Your task to perform on an android device: Open calendar and show me the third week of next month Image 0: 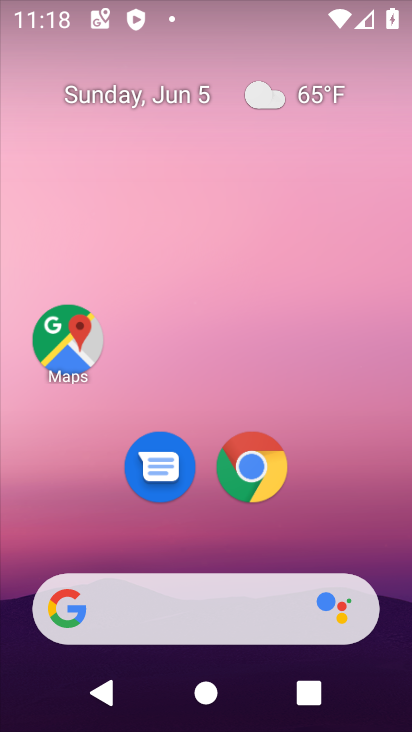
Step 0: drag from (352, 493) to (340, 107)
Your task to perform on an android device: Open calendar and show me the third week of next month Image 1: 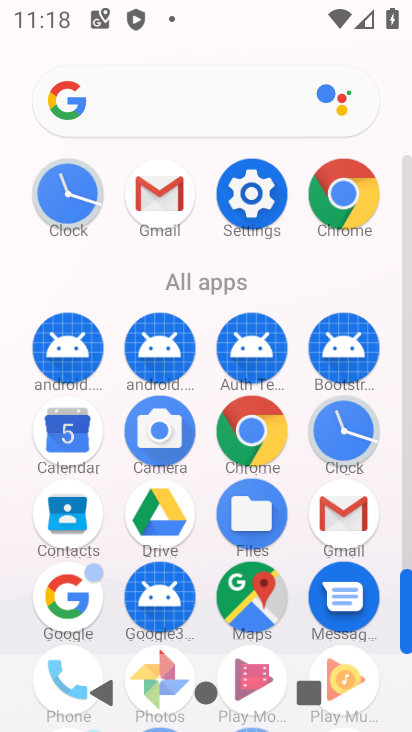
Step 1: click (52, 449)
Your task to perform on an android device: Open calendar and show me the third week of next month Image 2: 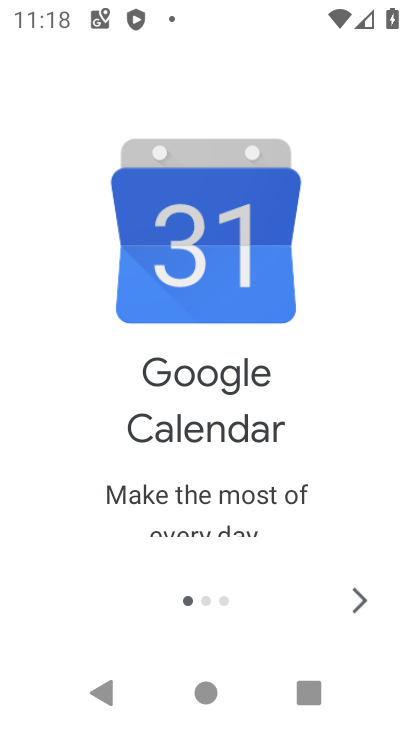
Step 2: click (347, 613)
Your task to perform on an android device: Open calendar and show me the third week of next month Image 3: 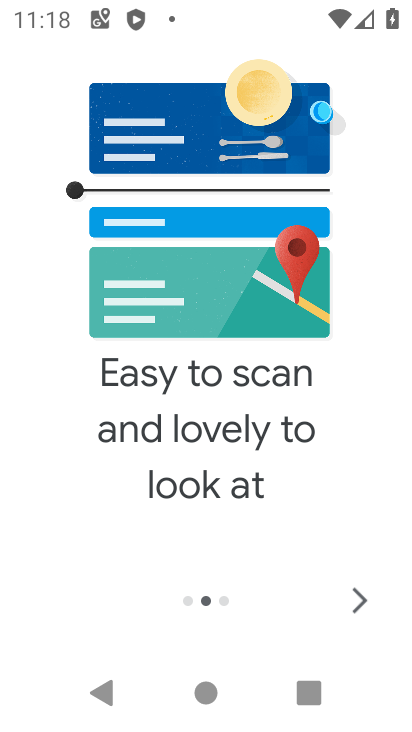
Step 3: click (347, 613)
Your task to perform on an android device: Open calendar and show me the third week of next month Image 4: 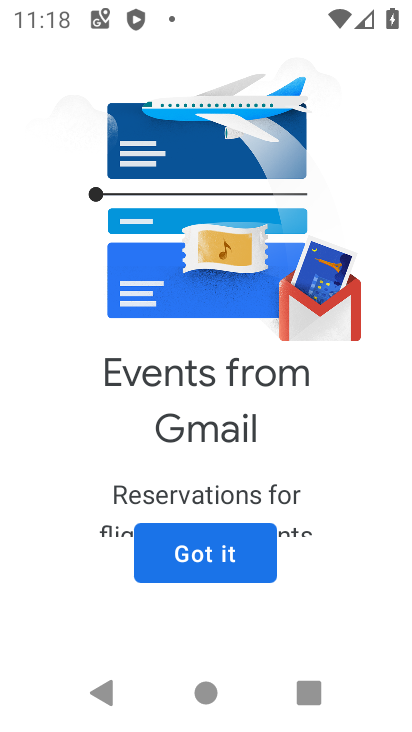
Step 4: click (214, 571)
Your task to perform on an android device: Open calendar and show me the third week of next month Image 5: 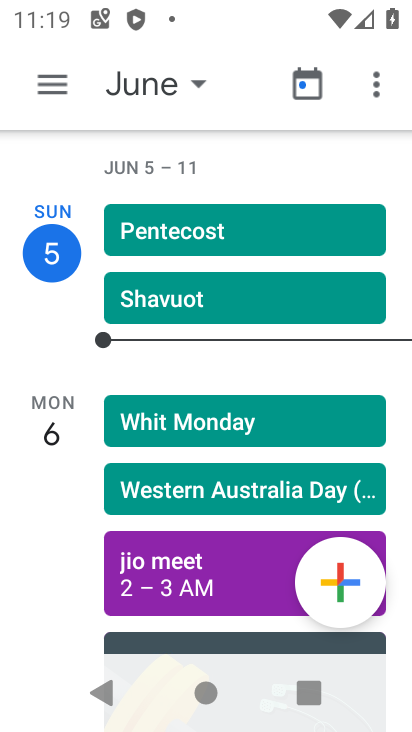
Step 5: click (182, 80)
Your task to perform on an android device: Open calendar and show me the third week of next month Image 6: 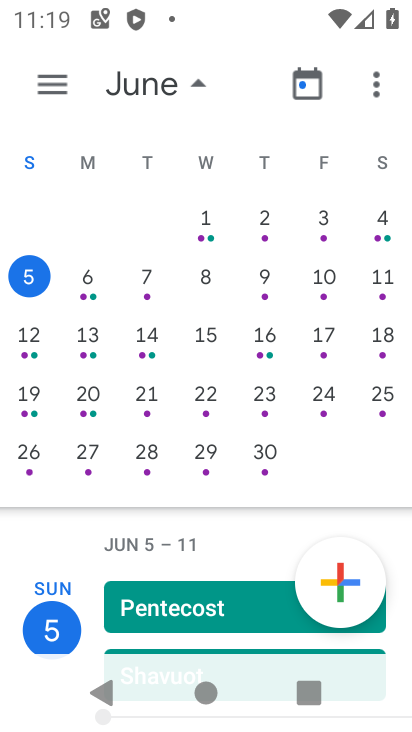
Step 6: drag from (387, 314) to (7, 361)
Your task to perform on an android device: Open calendar and show me the third week of next month Image 7: 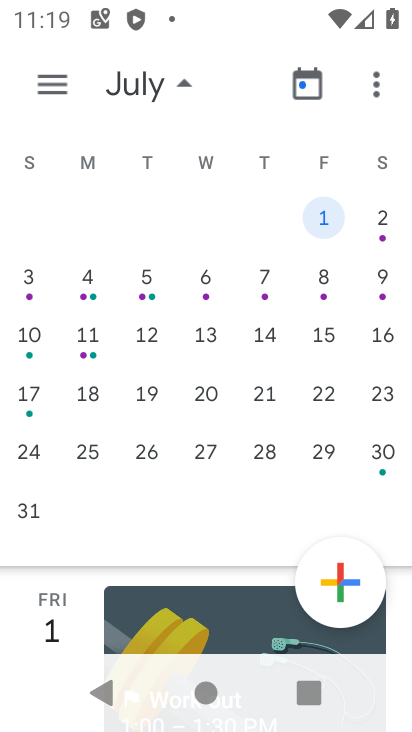
Step 7: click (317, 354)
Your task to perform on an android device: Open calendar and show me the third week of next month Image 8: 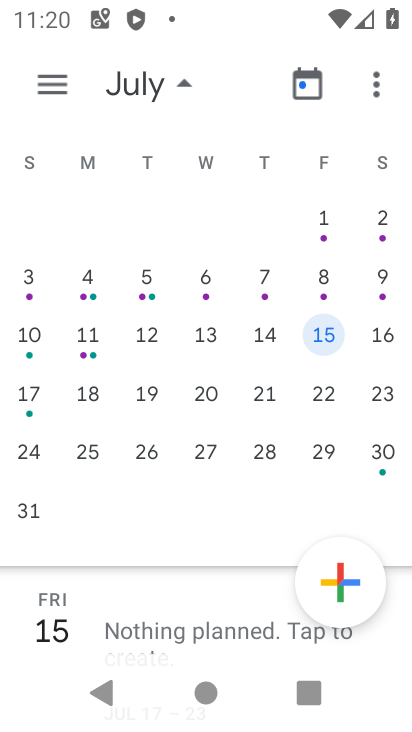
Step 8: task complete